Your task to perform on an android device: When is my next appointment? Image 0: 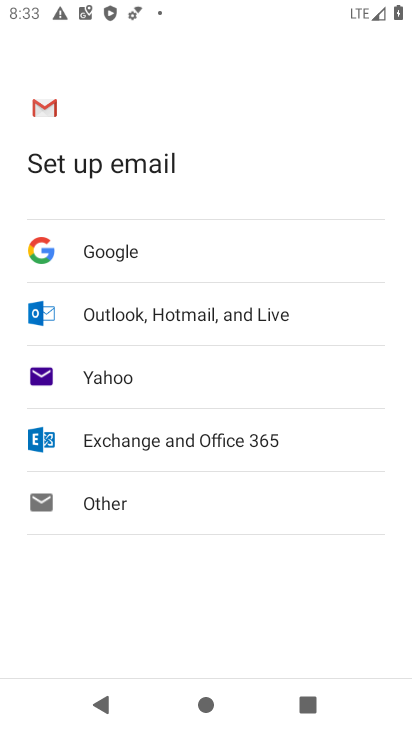
Step 0: press home button
Your task to perform on an android device: When is my next appointment? Image 1: 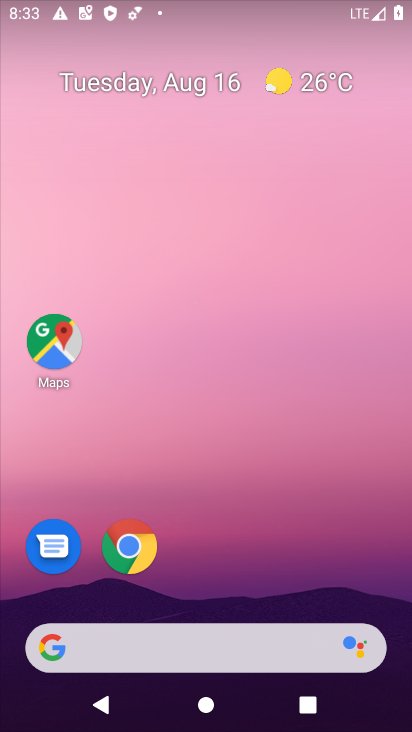
Step 1: drag from (203, 546) to (259, 33)
Your task to perform on an android device: When is my next appointment? Image 2: 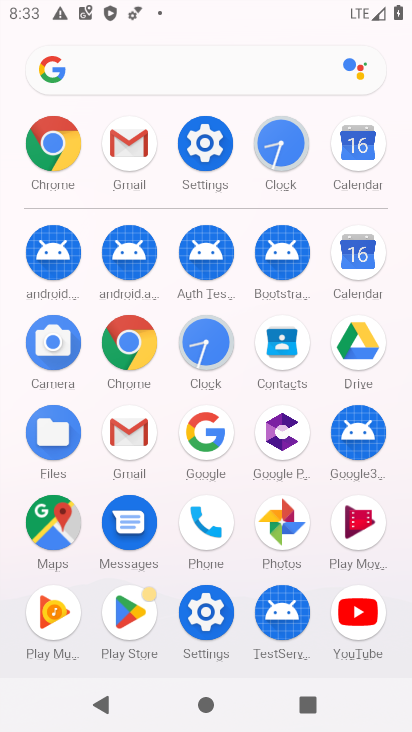
Step 2: click (351, 141)
Your task to perform on an android device: When is my next appointment? Image 3: 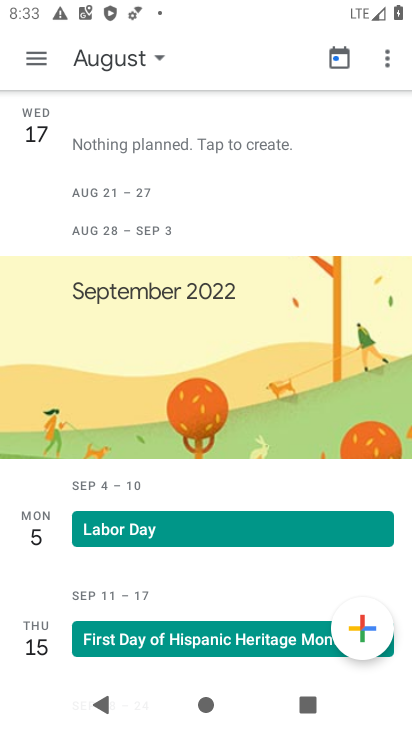
Step 3: task complete